Your task to perform on an android device: Open calendar and show me the fourth week of next month Image 0: 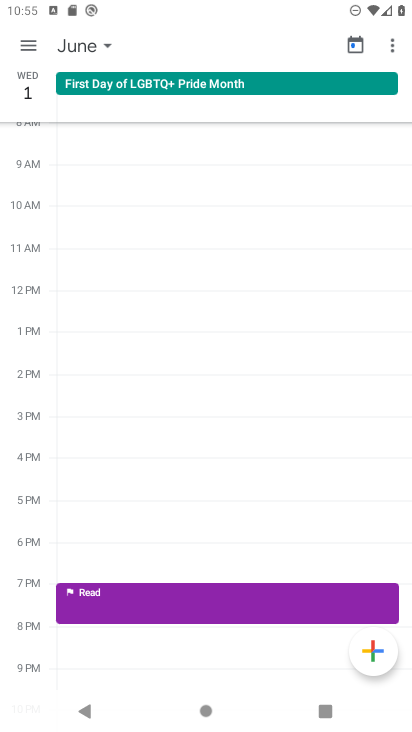
Step 0: press home button
Your task to perform on an android device: Open calendar and show me the fourth week of next month Image 1: 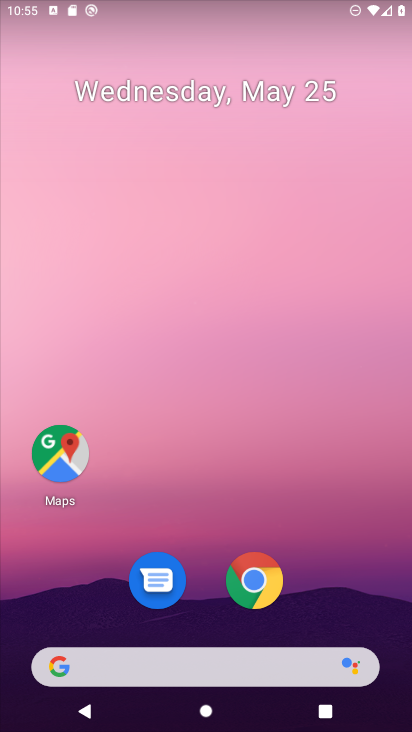
Step 1: drag from (35, 520) to (223, 108)
Your task to perform on an android device: Open calendar and show me the fourth week of next month Image 2: 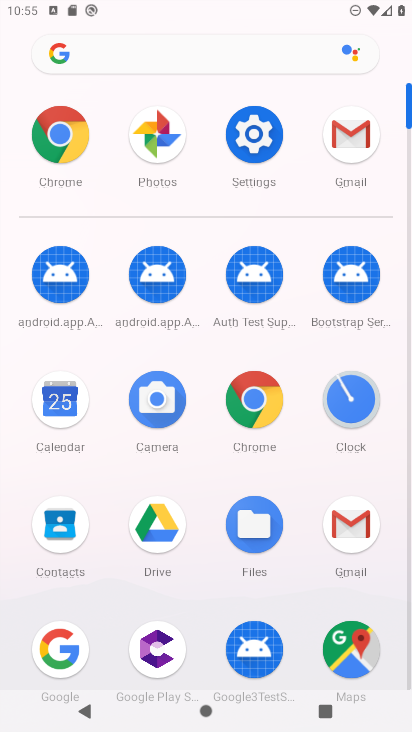
Step 2: click (46, 394)
Your task to perform on an android device: Open calendar and show me the fourth week of next month Image 3: 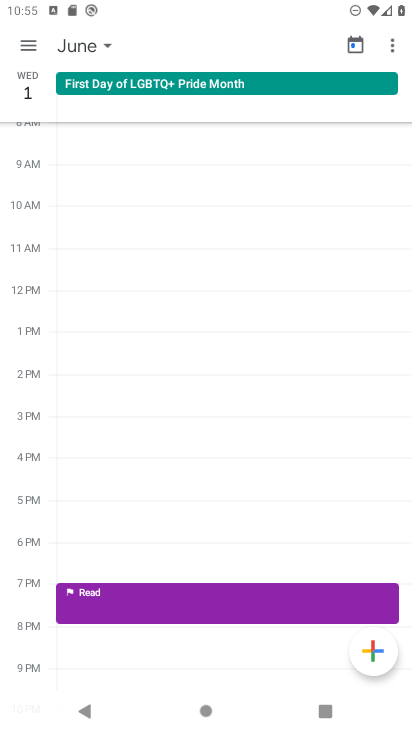
Step 3: click (94, 51)
Your task to perform on an android device: Open calendar and show me the fourth week of next month Image 4: 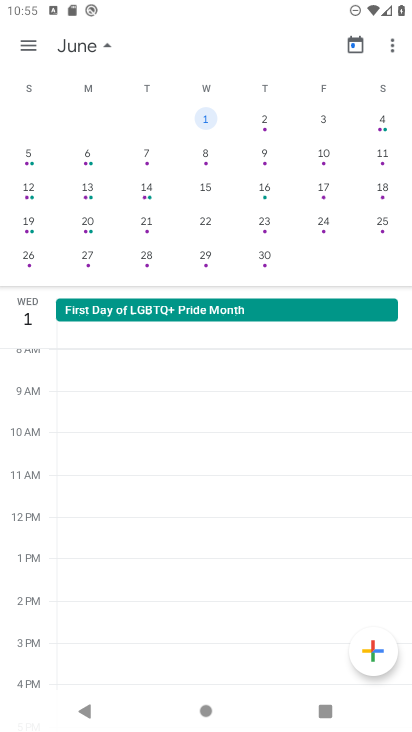
Step 4: click (197, 156)
Your task to perform on an android device: Open calendar and show me the fourth week of next month Image 5: 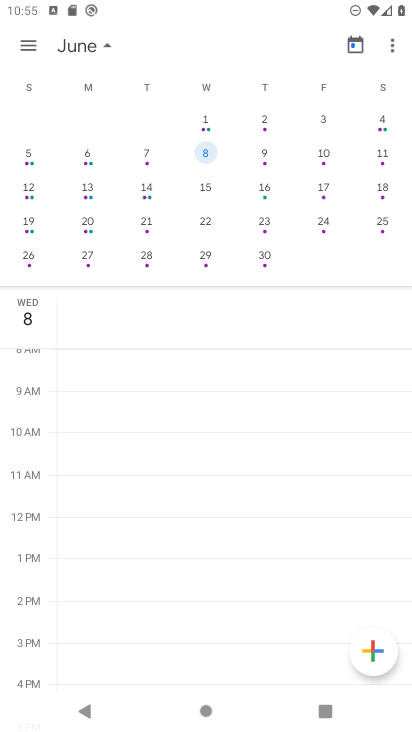
Step 5: click (207, 183)
Your task to perform on an android device: Open calendar and show me the fourth week of next month Image 6: 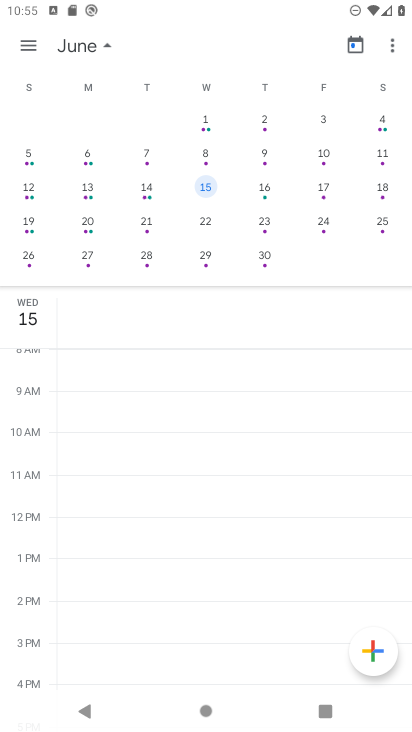
Step 6: click (203, 207)
Your task to perform on an android device: Open calendar and show me the fourth week of next month Image 7: 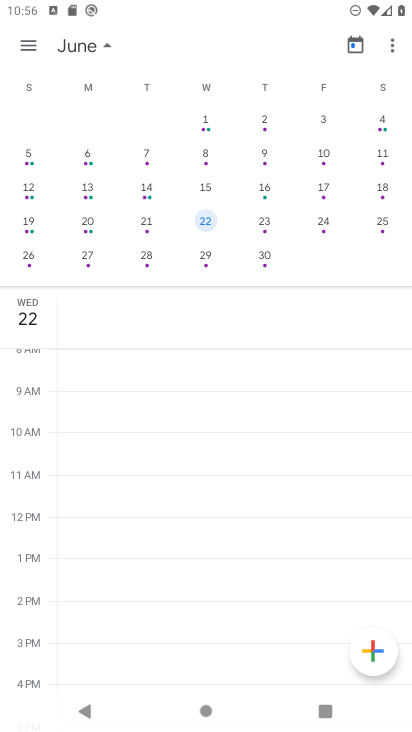
Step 7: task complete